Your task to perform on an android device: visit the assistant section in the google photos Image 0: 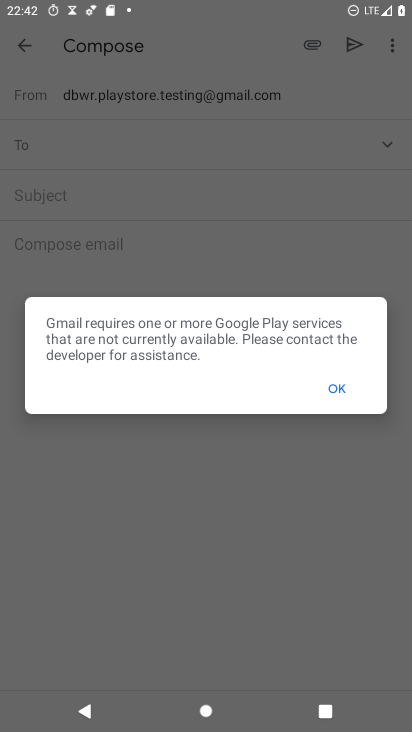
Step 0: press back button
Your task to perform on an android device: visit the assistant section in the google photos Image 1: 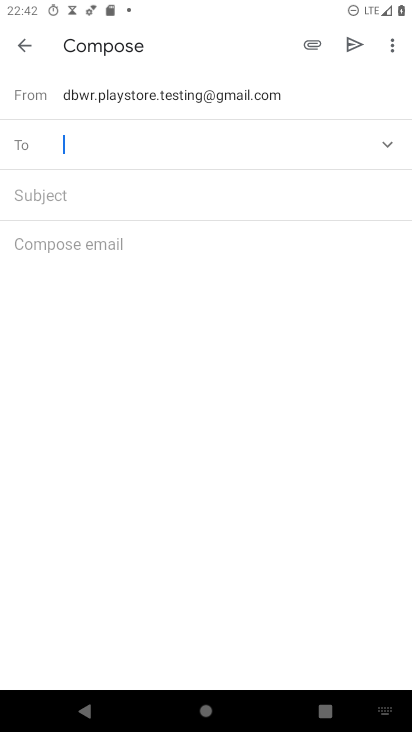
Step 1: press back button
Your task to perform on an android device: visit the assistant section in the google photos Image 2: 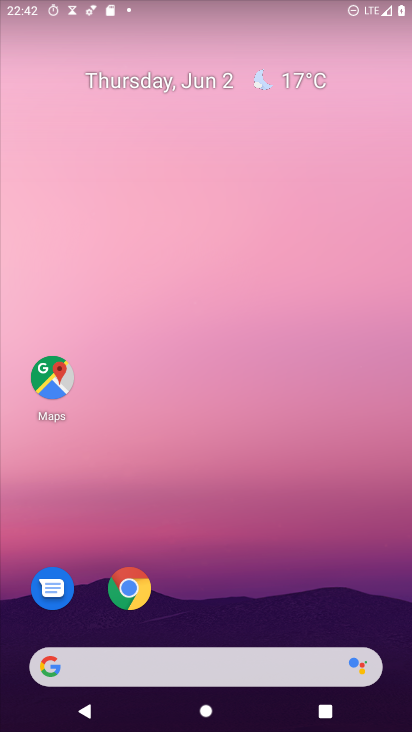
Step 2: drag from (294, 595) to (310, 139)
Your task to perform on an android device: visit the assistant section in the google photos Image 3: 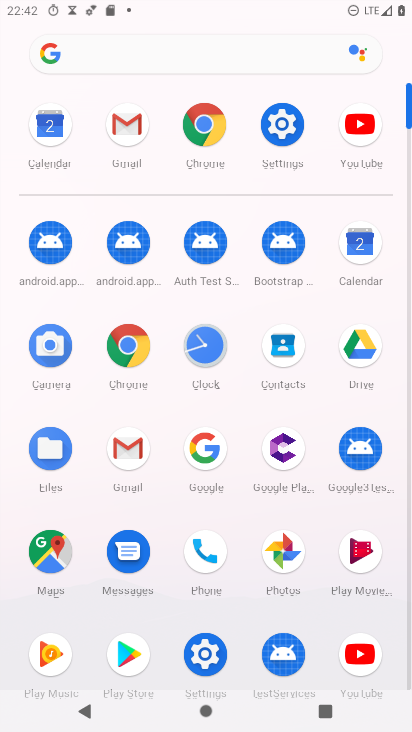
Step 3: click (278, 555)
Your task to perform on an android device: visit the assistant section in the google photos Image 4: 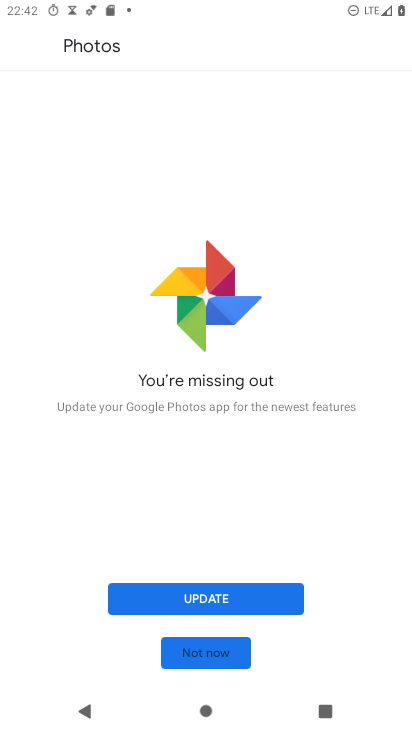
Step 4: click (200, 646)
Your task to perform on an android device: visit the assistant section in the google photos Image 5: 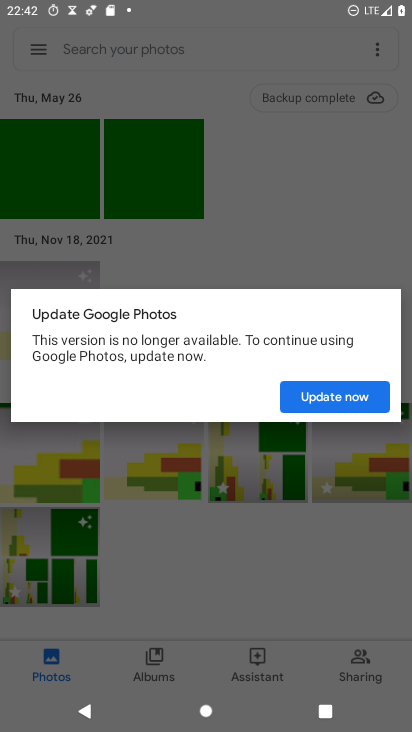
Step 5: click (305, 396)
Your task to perform on an android device: visit the assistant section in the google photos Image 6: 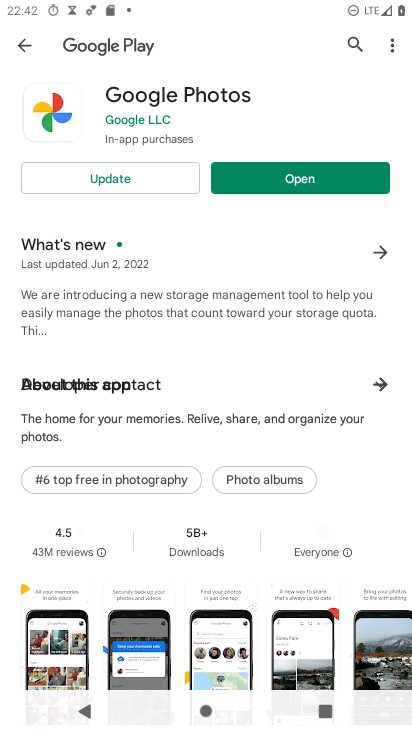
Step 6: click (331, 177)
Your task to perform on an android device: visit the assistant section in the google photos Image 7: 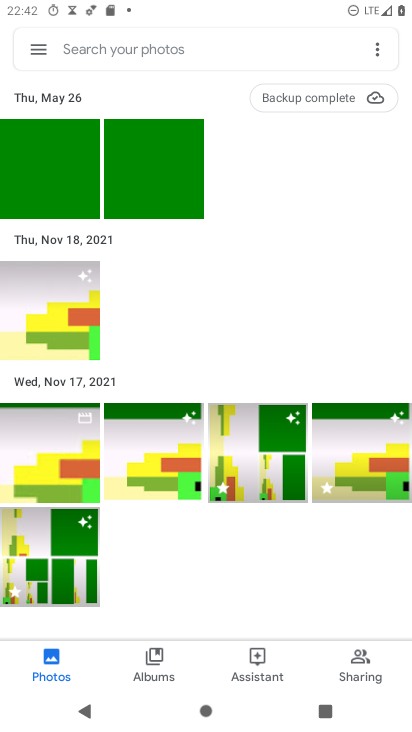
Step 7: click (265, 663)
Your task to perform on an android device: visit the assistant section in the google photos Image 8: 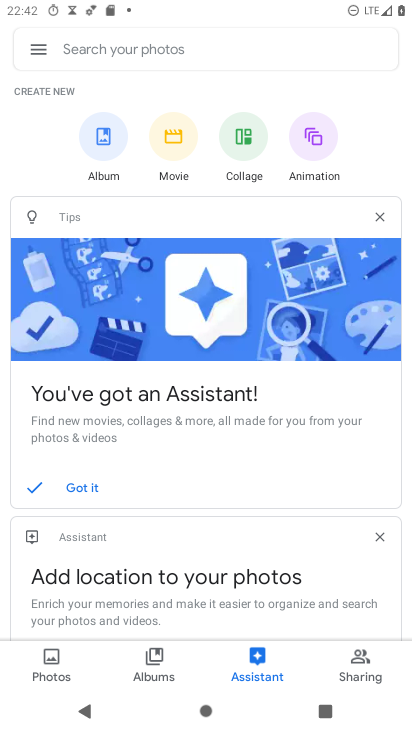
Step 8: task complete